Your task to perform on an android device: toggle priority inbox in the gmail app Image 0: 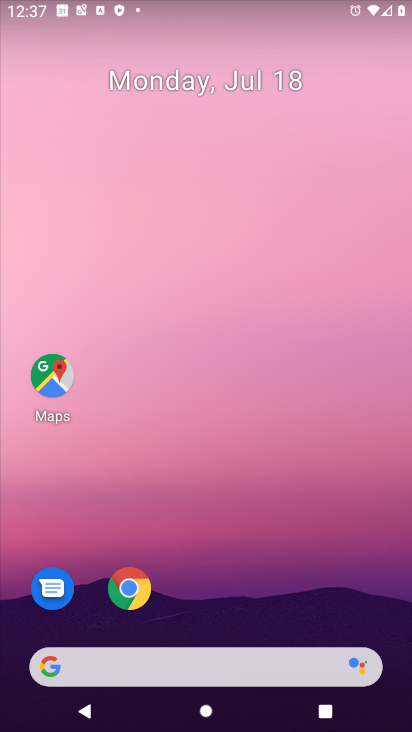
Step 0: drag from (408, 180) to (406, 228)
Your task to perform on an android device: toggle priority inbox in the gmail app Image 1: 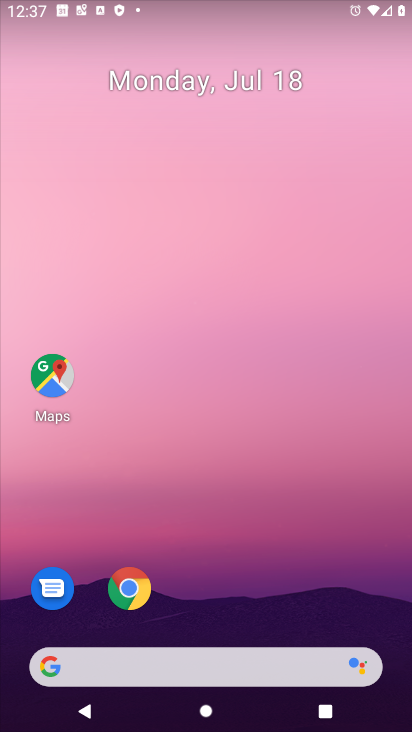
Step 1: drag from (271, 594) to (409, 144)
Your task to perform on an android device: toggle priority inbox in the gmail app Image 2: 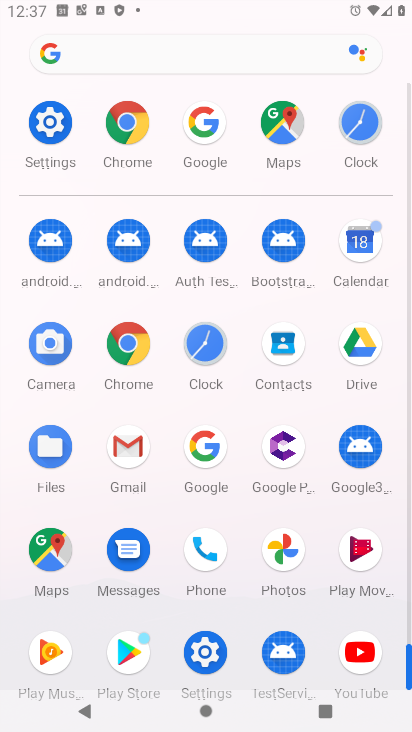
Step 2: drag from (220, 356) to (314, 10)
Your task to perform on an android device: toggle priority inbox in the gmail app Image 3: 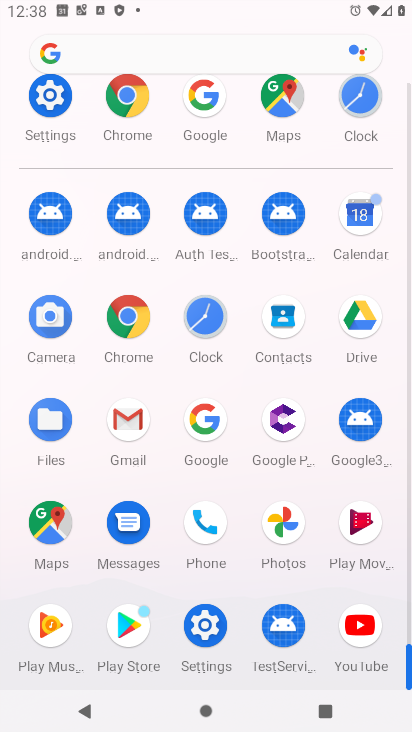
Step 3: click (135, 424)
Your task to perform on an android device: toggle priority inbox in the gmail app Image 4: 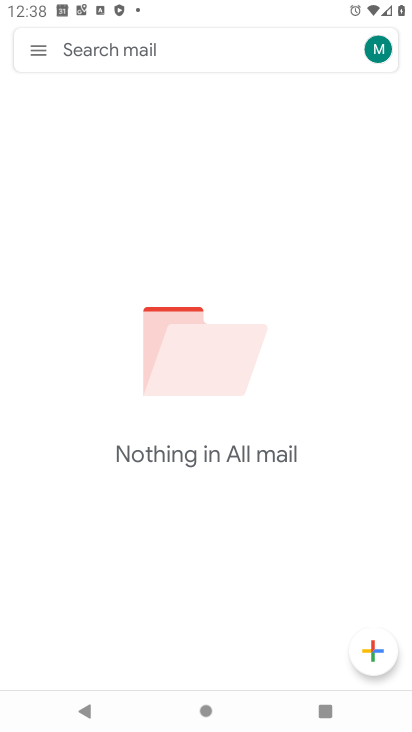
Step 4: click (33, 54)
Your task to perform on an android device: toggle priority inbox in the gmail app Image 5: 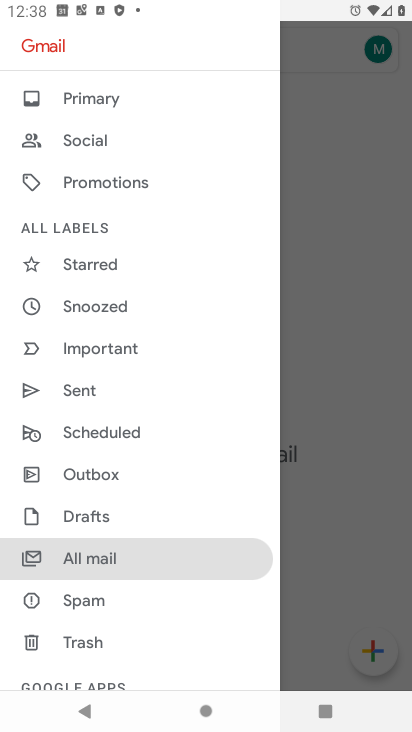
Step 5: drag from (146, 558) to (208, 95)
Your task to perform on an android device: toggle priority inbox in the gmail app Image 6: 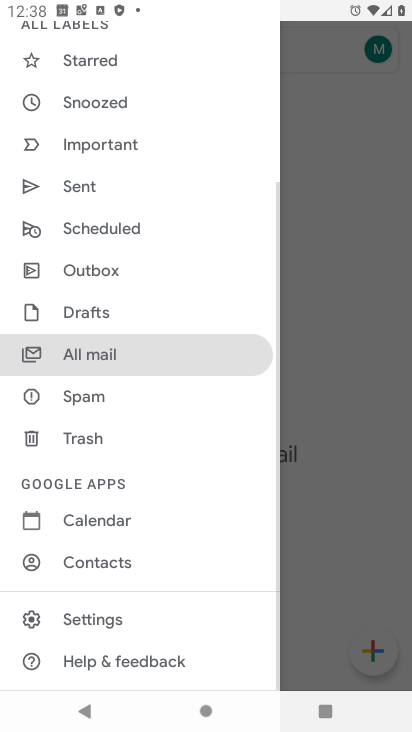
Step 6: click (89, 618)
Your task to perform on an android device: toggle priority inbox in the gmail app Image 7: 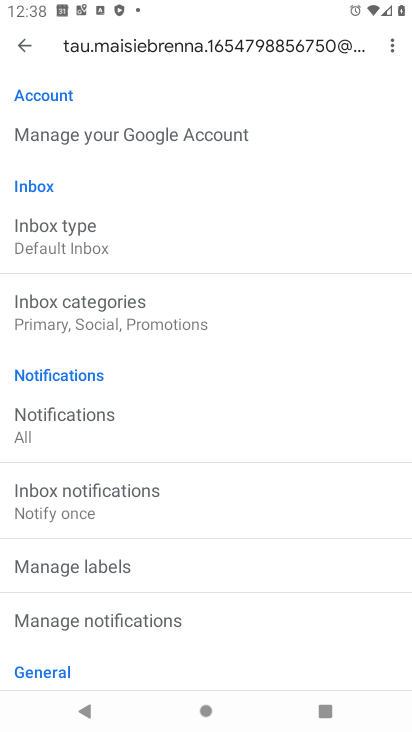
Step 7: click (80, 249)
Your task to perform on an android device: toggle priority inbox in the gmail app Image 8: 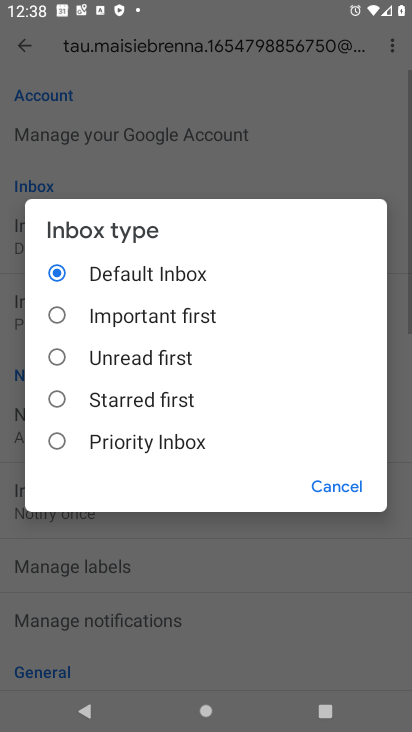
Step 8: click (84, 442)
Your task to perform on an android device: toggle priority inbox in the gmail app Image 9: 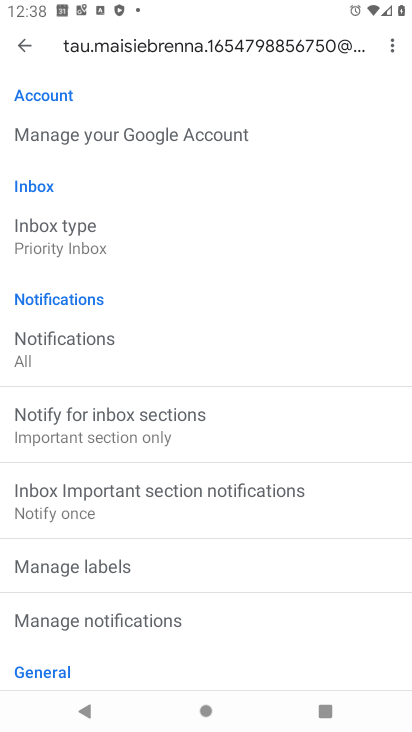
Step 9: task complete